Your task to perform on an android device: How much does the new iPad cost? Image 0: 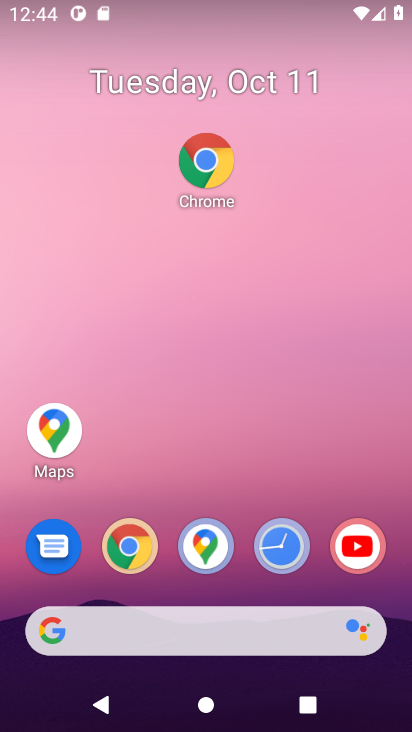
Step 0: click (127, 551)
Your task to perform on an android device: How much does the new iPad cost? Image 1: 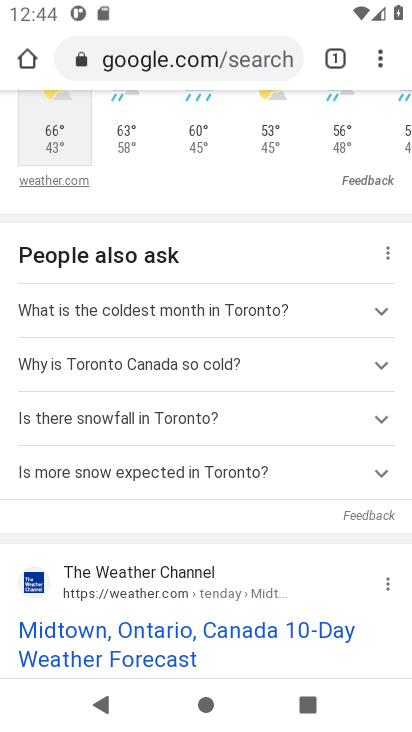
Step 1: click (171, 63)
Your task to perform on an android device: How much does the new iPad cost? Image 2: 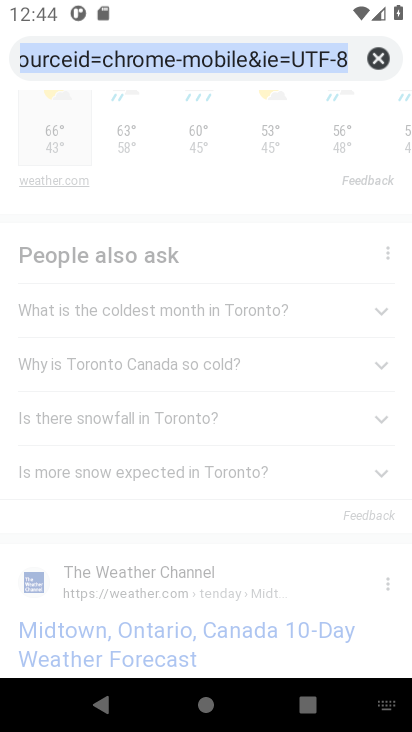
Step 2: type "cost of new iPad"
Your task to perform on an android device: How much does the new iPad cost? Image 3: 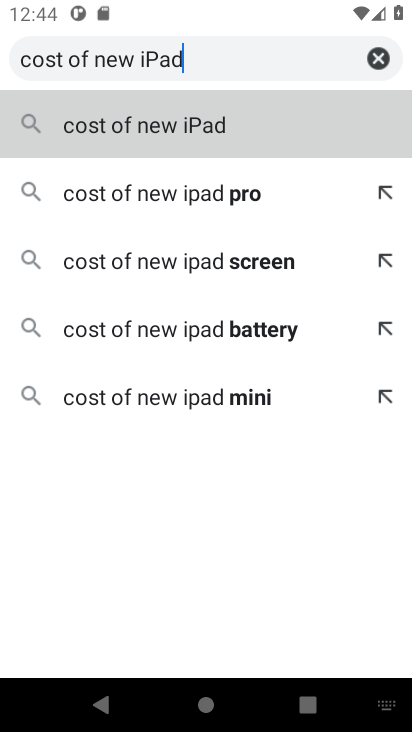
Step 3: type ""
Your task to perform on an android device: How much does the new iPad cost? Image 4: 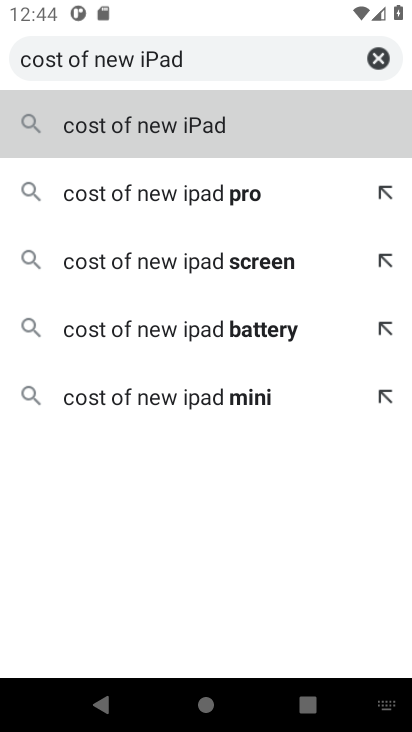
Step 4: press enter
Your task to perform on an android device: How much does the new iPad cost? Image 5: 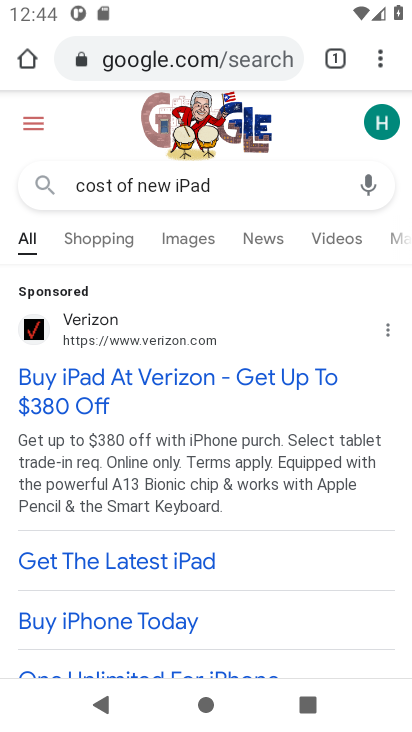
Step 5: drag from (297, 517) to (309, 479)
Your task to perform on an android device: How much does the new iPad cost? Image 6: 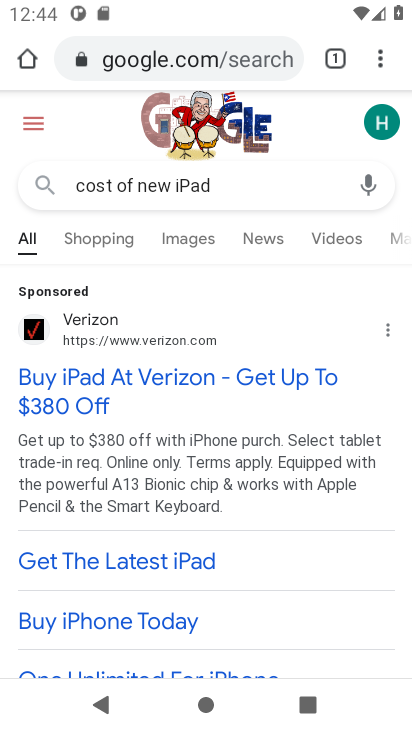
Step 6: click (112, 239)
Your task to perform on an android device: How much does the new iPad cost? Image 7: 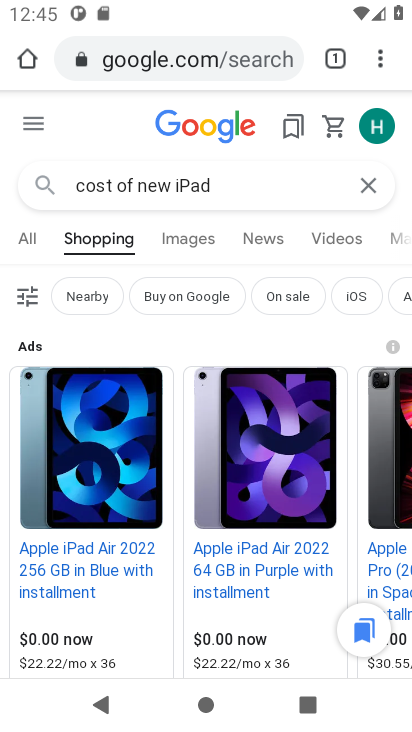
Step 7: task complete